Your task to perform on an android device: set the stopwatch Image 0: 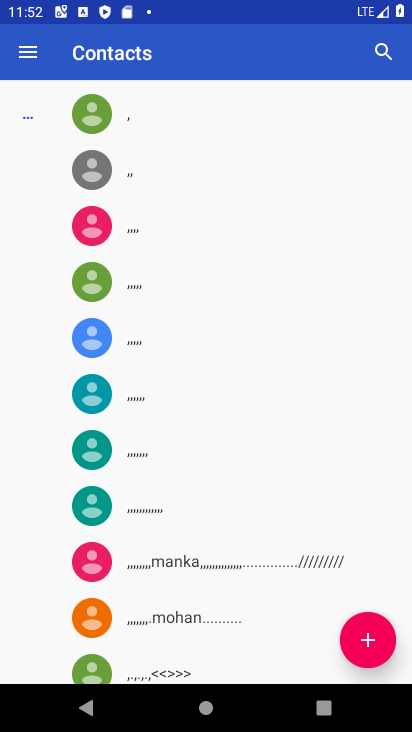
Step 0: press home button
Your task to perform on an android device: set the stopwatch Image 1: 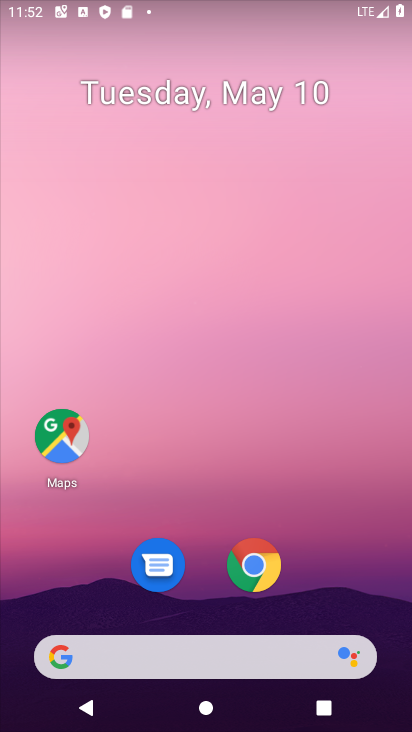
Step 1: drag from (191, 534) to (181, 146)
Your task to perform on an android device: set the stopwatch Image 2: 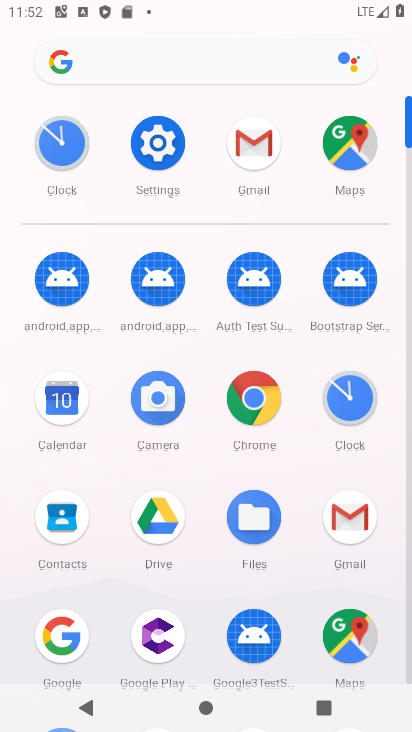
Step 2: drag from (207, 375) to (200, 207)
Your task to perform on an android device: set the stopwatch Image 3: 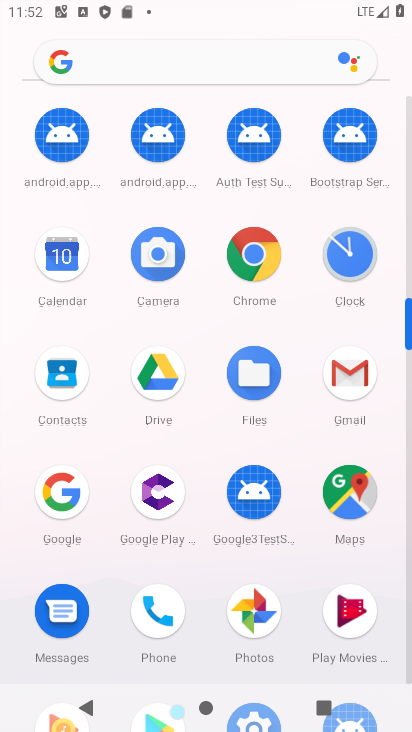
Step 3: click (352, 275)
Your task to perform on an android device: set the stopwatch Image 4: 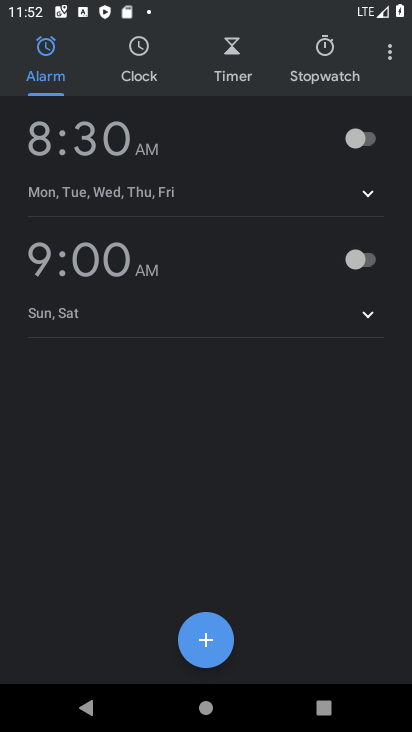
Step 4: click (332, 54)
Your task to perform on an android device: set the stopwatch Image 5: 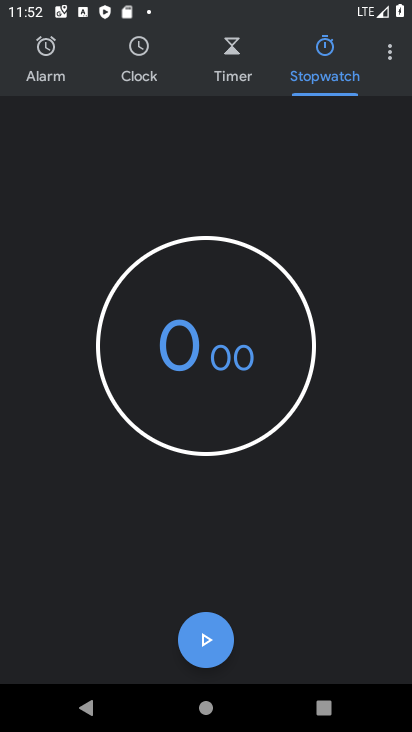
Step 5: click (217, 645)
Your task to perform on an android device: set the stopwatch Image 6: 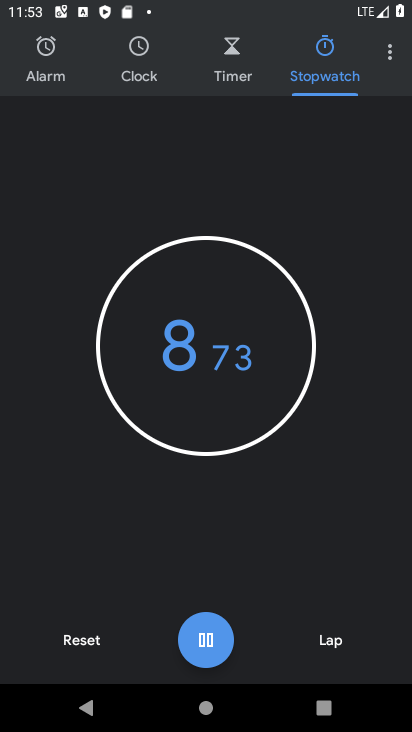
Step 6: task complete